Your task to perform on an android device: Is it going to rain this weekend? Image 0: 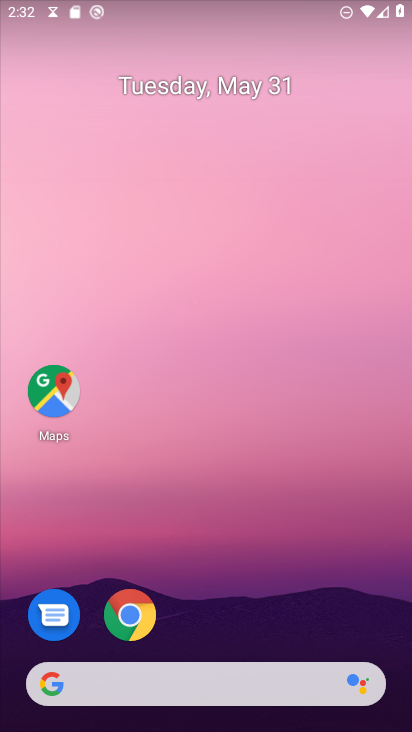
Step 0: click (168, 207)
Your task to perform on an android device: Is it going to rain this weekend? Image 1: 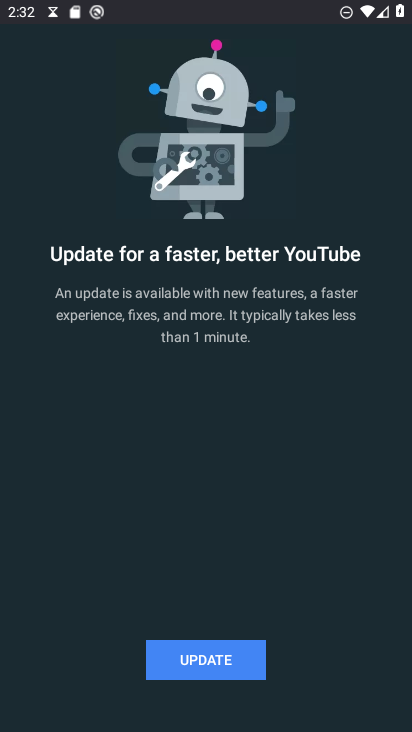
Step 1: press back button
Your task to perform on an android device: Is it going to rain this weekend? Image 2: 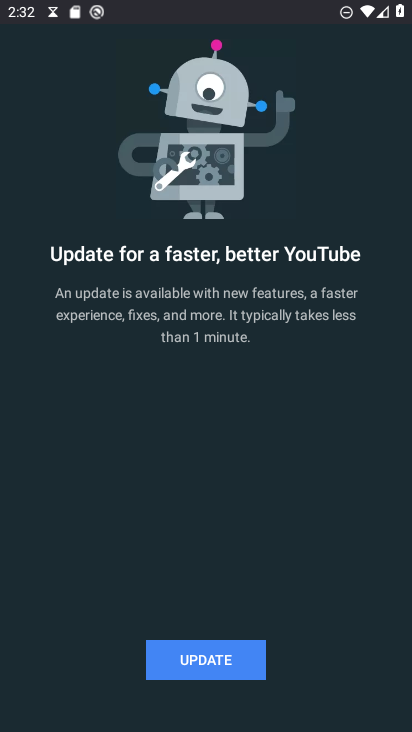
Step 2: press back button
Your task to perform on an android device: Is it going to rain this weekend? Image 3: 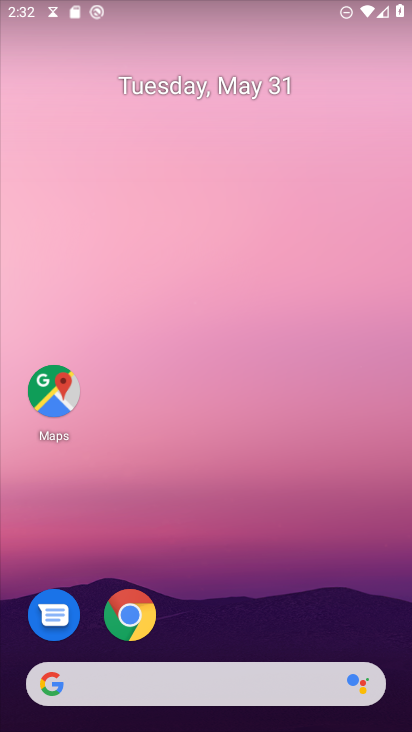
Step 3: drag from (223, 711) to (162, 147)
Your task to perform on an android device: Is it going to rain this weekend? Image 4: 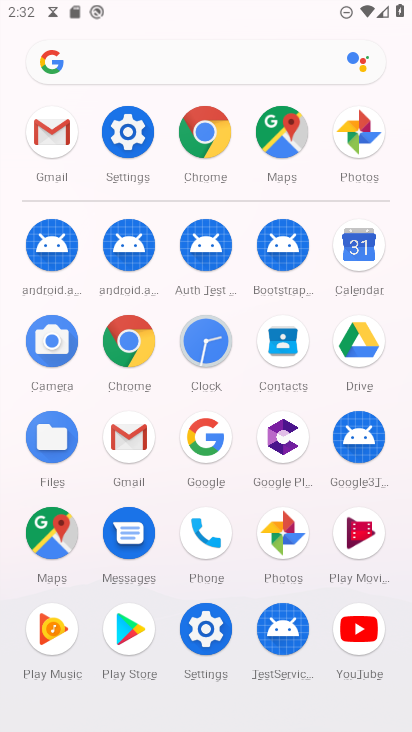
Step 4: press back button
Your task to perform on an android device: Is it going to rain this weekend? Image 5: 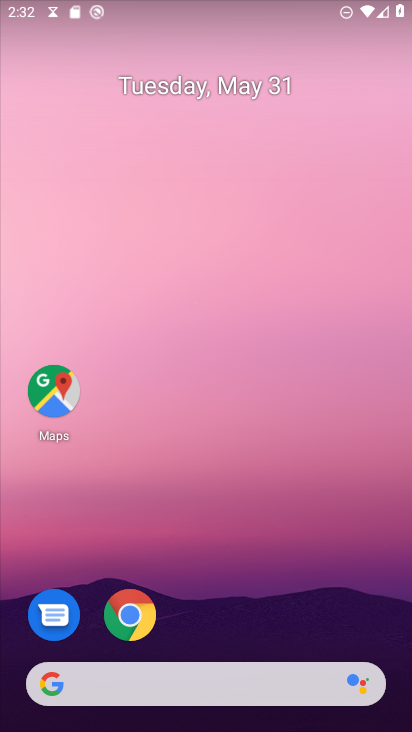
Step 5: drag from (2, 199) to (315, 443)
Your task to perform on an android device: Is it going to rain this weekend? Image 6: 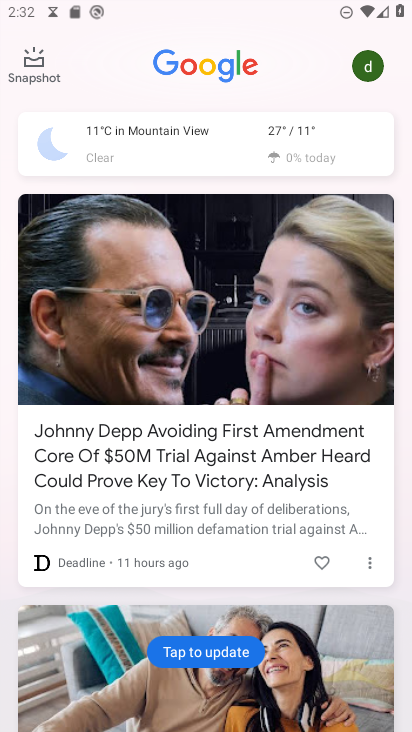
Step 6: click (212, 142)
Your task to perform on an android device: Is it going to rain this weekend? Image 7: 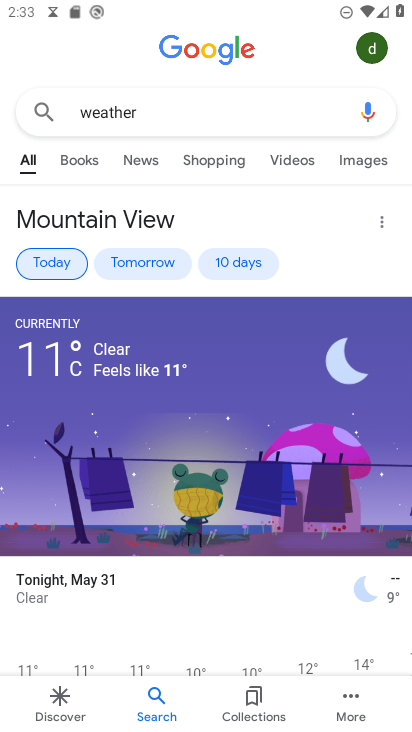
Step 7: click (229, 263)
Your task to perform on an android device: Is it going to rain this weekend? Image 8: 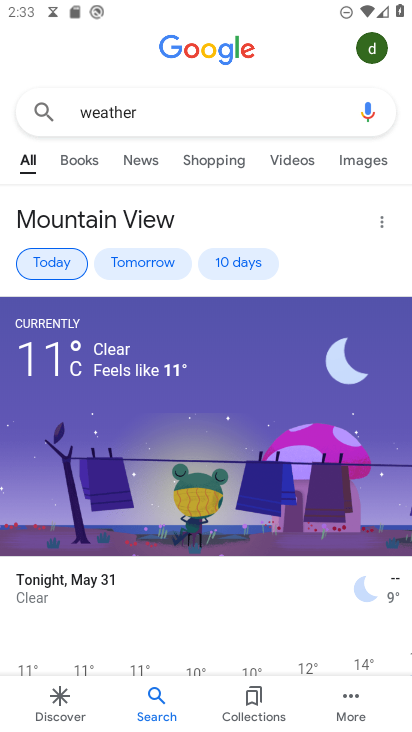
Step 8: click (229, 263)
Your task to perform on an android device: Is it going to rain this weekend? Image 9: 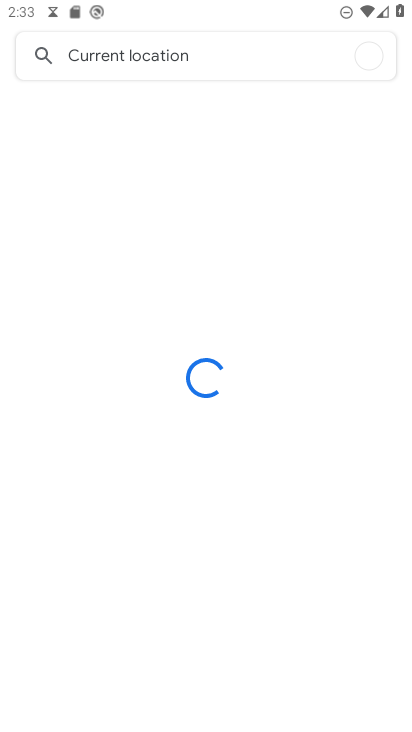
Step 9: click (232, 258)
Your task to perform on an android device: Is it going to rain this weekend? Image 10: 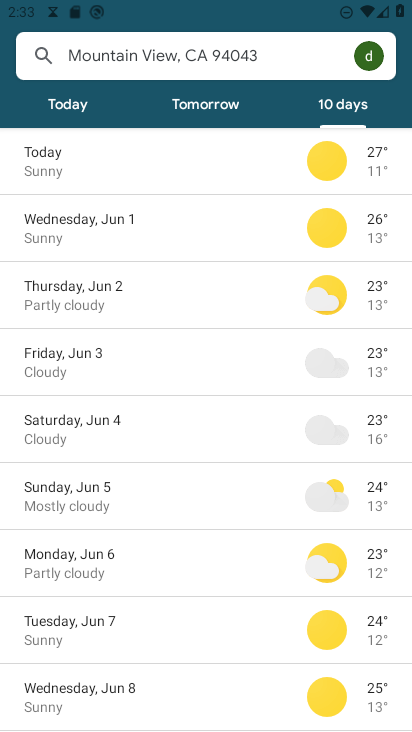
Step 10: task complete